Your task to perform on an android device: turn off improve location accuracy Image 0: 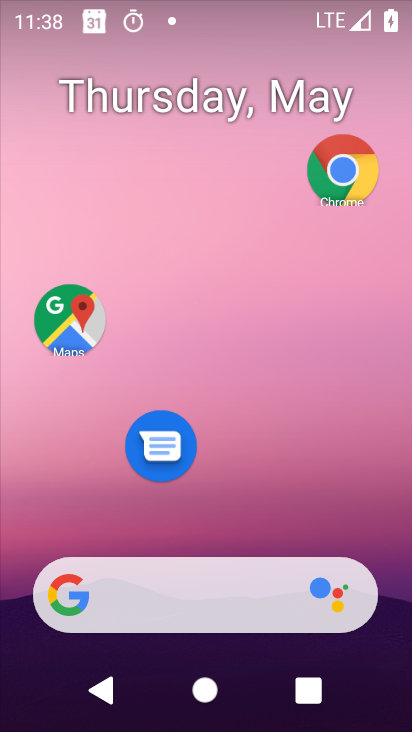
Step 0: drag from (257, 556) to (333, 9)
Your task to perform on an android device: turn off improve location accuracy Image 1: 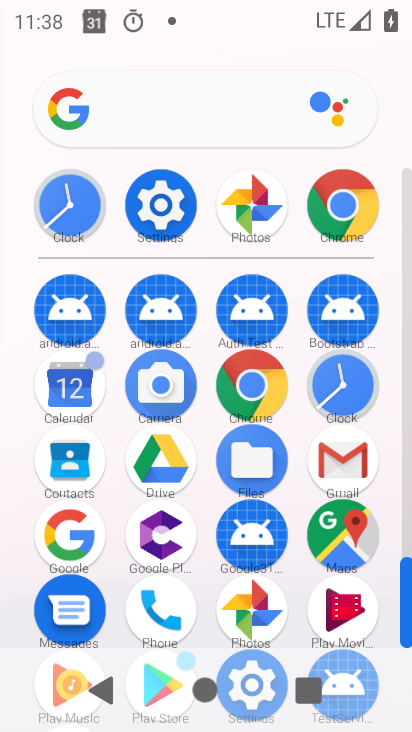
Step 1: click (165, 212)
Your task to perform on an android device: turn off improve location accuracy Image 2: 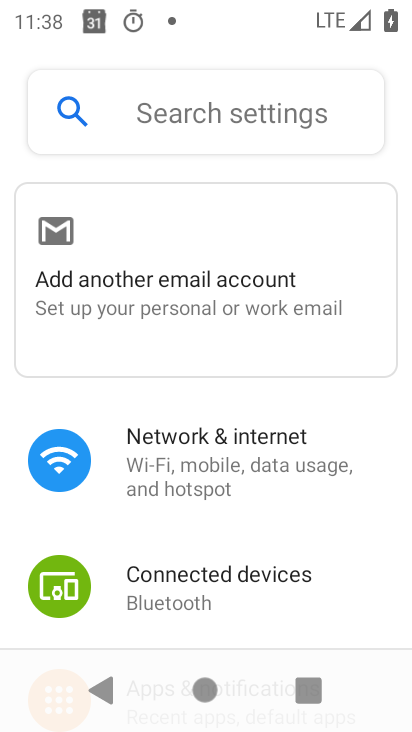
Step 2: drag from (288, 596) to (327, 58)
Your task to perform on an android device: turn off improve location accuracy Image 3: 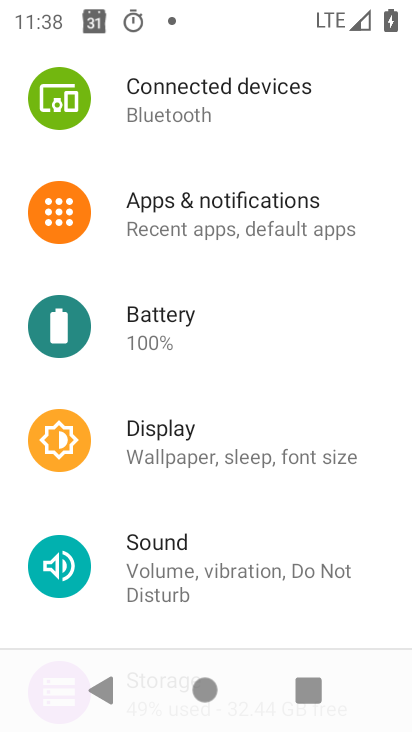
Step 3: drag from (326, 598) to (366, 57)
Your task to perform on an android device: turn off improve location accuracy Image 4: 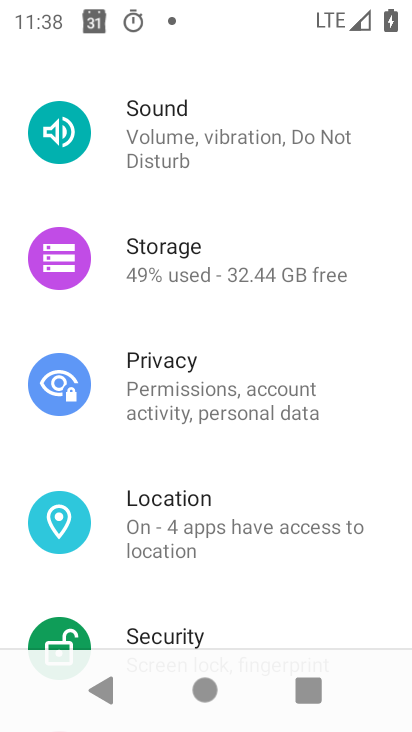
Step 4: drag from (291, 602) to (312, 181)
Your task to perform on an android device: turn off improve location accuracy Image 5: 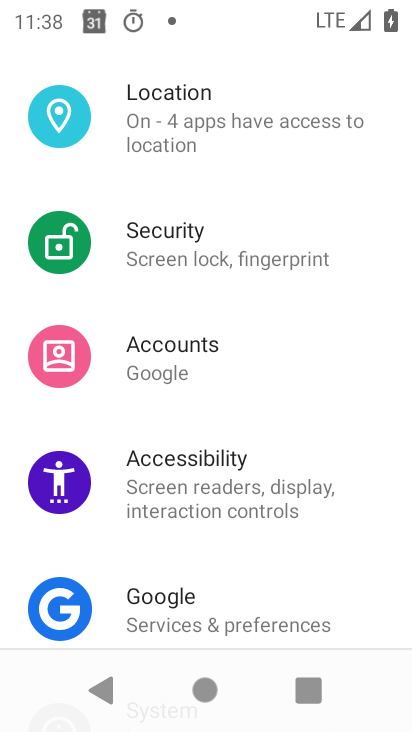
Step 5: click (251, 118)
Your task to perform on an android device: turn off improve location accuracy Image 6: 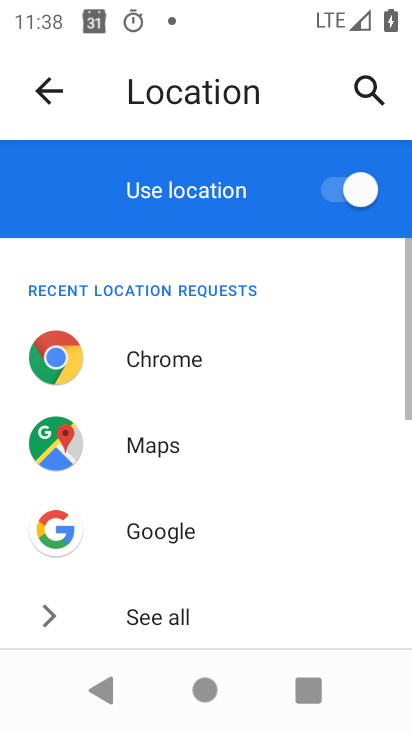
Step 6: drag from (293, 638) to (316, 89)
Your task to perform on an android device: turn off improve location accuracy Image 7: 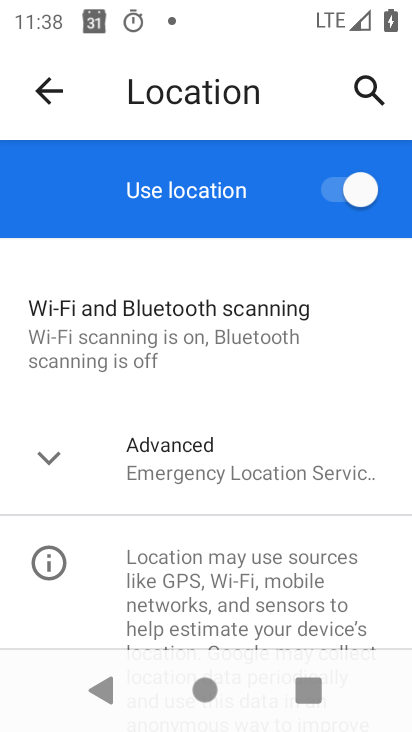
Step 7: click (231, 472)
Your task to perform on an android device: turn off improve location accuracy Image 8: 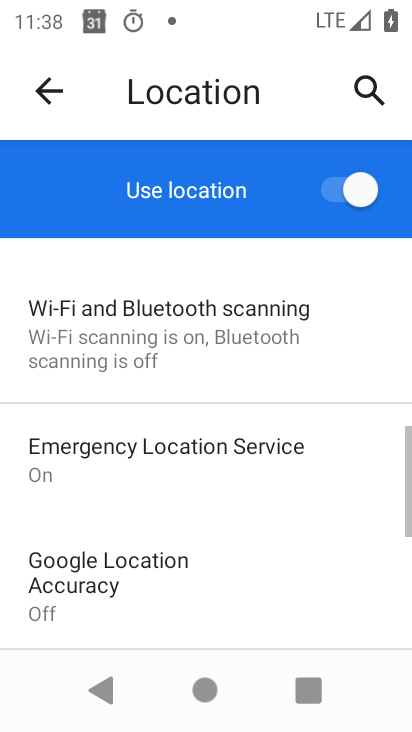
Step 8: drag from (319, 617) to (298, 368)
Your task to perform on an android device: turn off improve location accuracy Image 9: 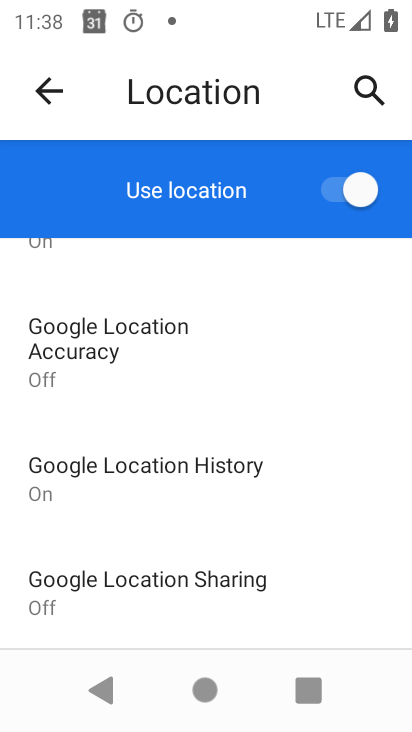
Step 9: click (274, 356)
Your task to perform on an android device: turn off improve location accuracy Image 10: 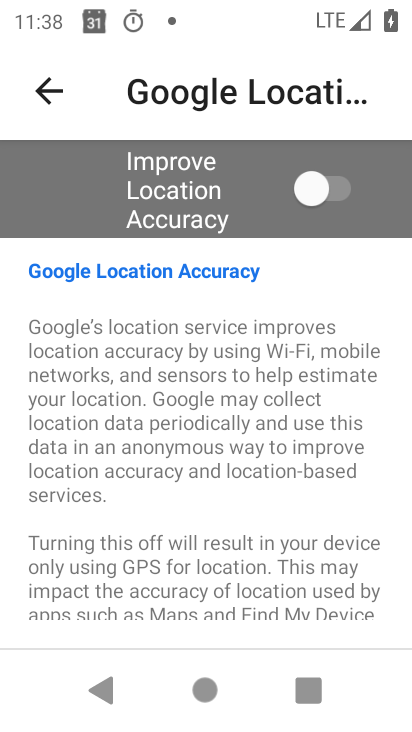
Step 10: task complete